Your task to perform on an android device: turn pop-ups off in chrome Image 0: 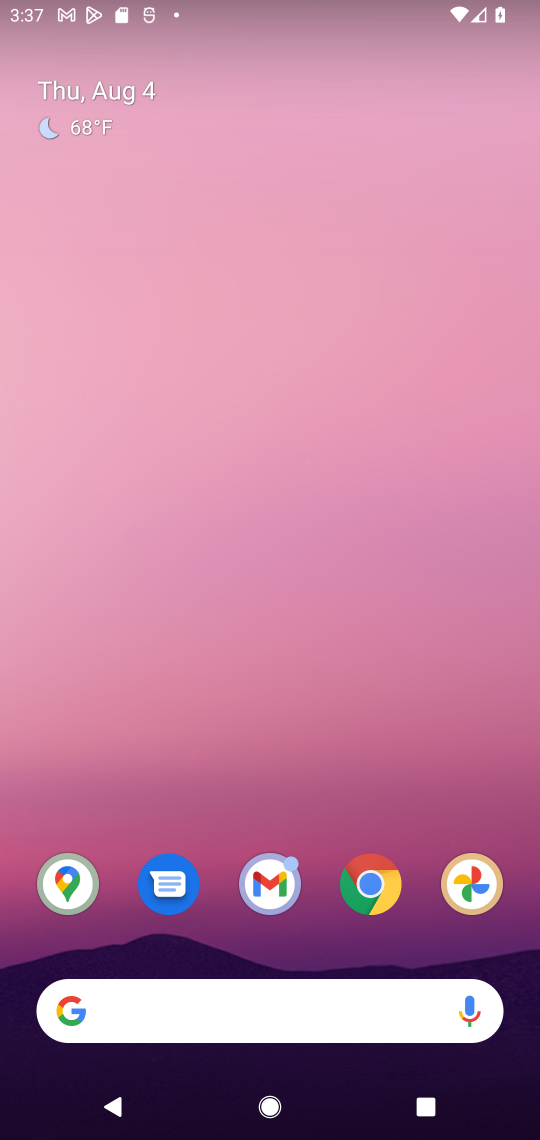
Step 0: click (360, 894)
Your task to perform on an android device: turn pop-ups off in chrome Image 1: 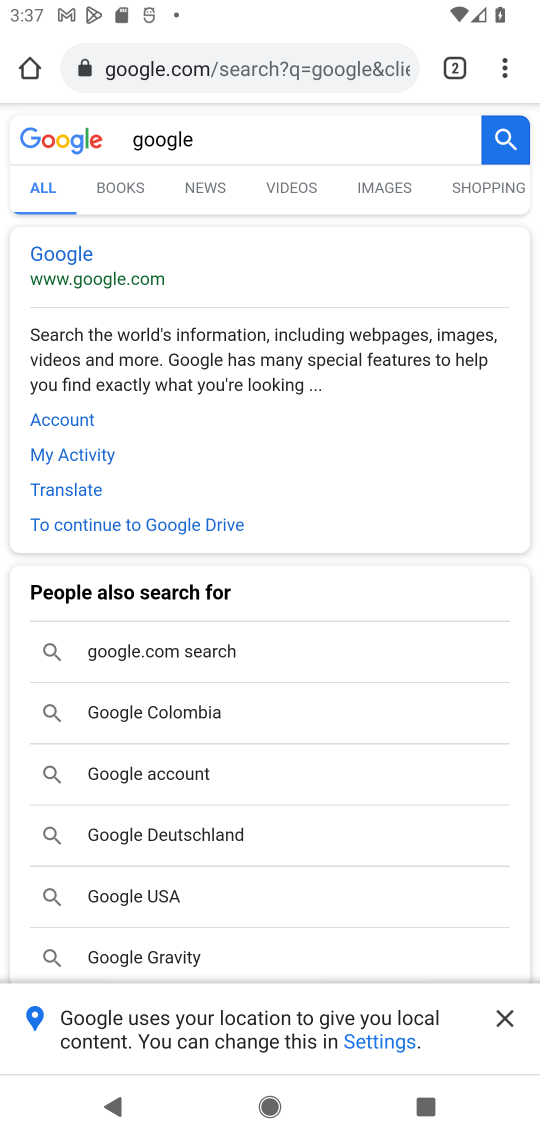
Step 1: click (491, 71)
Your task to perform on an android device: turn pop-ups off in chrome Image 2: 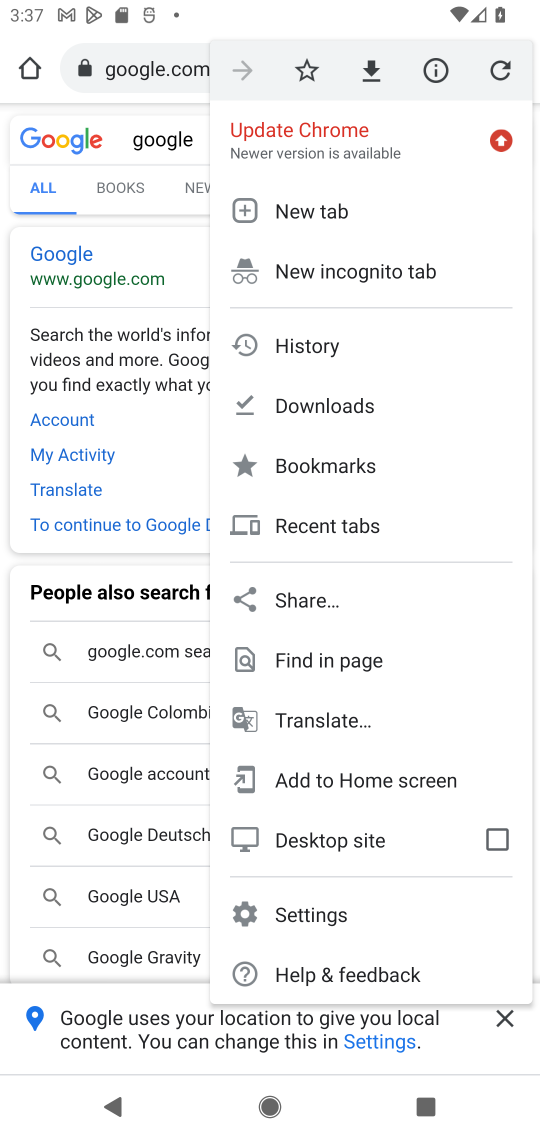
Step 2: click (339, 924)
Your task to perform on an android device: turn pop-ups off in chrome Image 3: 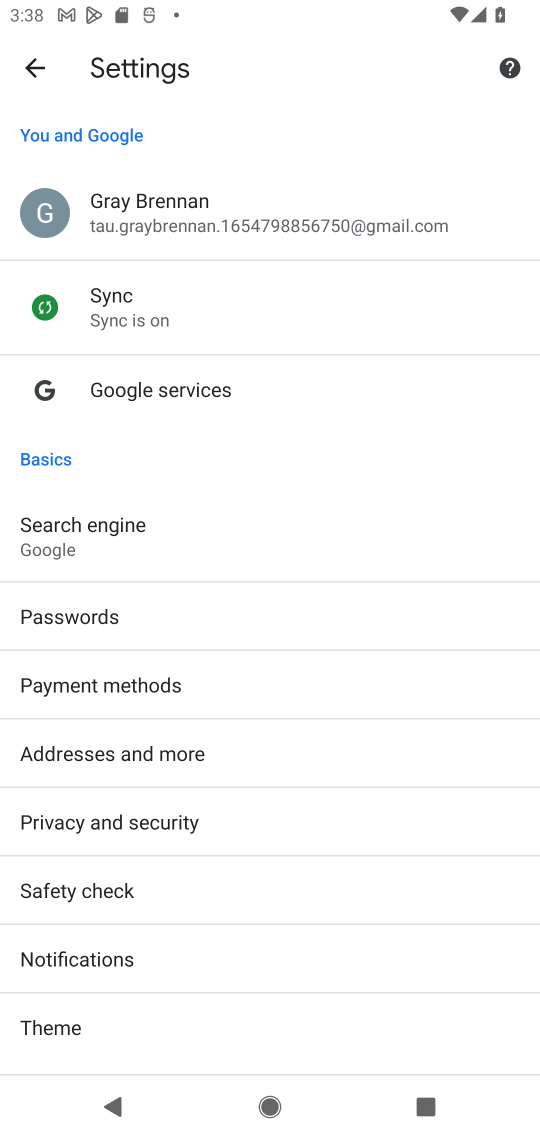
Step 3: task complete